Your task to perform on an android device: add a contact in the contacts app Image 0: 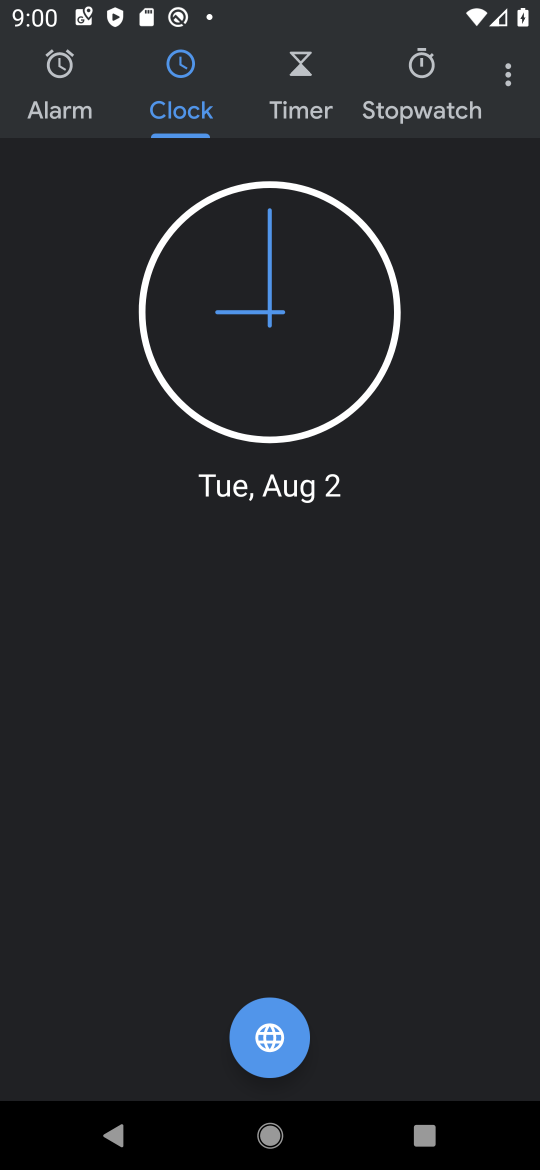
Step 0: press home button
Your task to perform on an android device: add a contact in the contacts app Image 1: 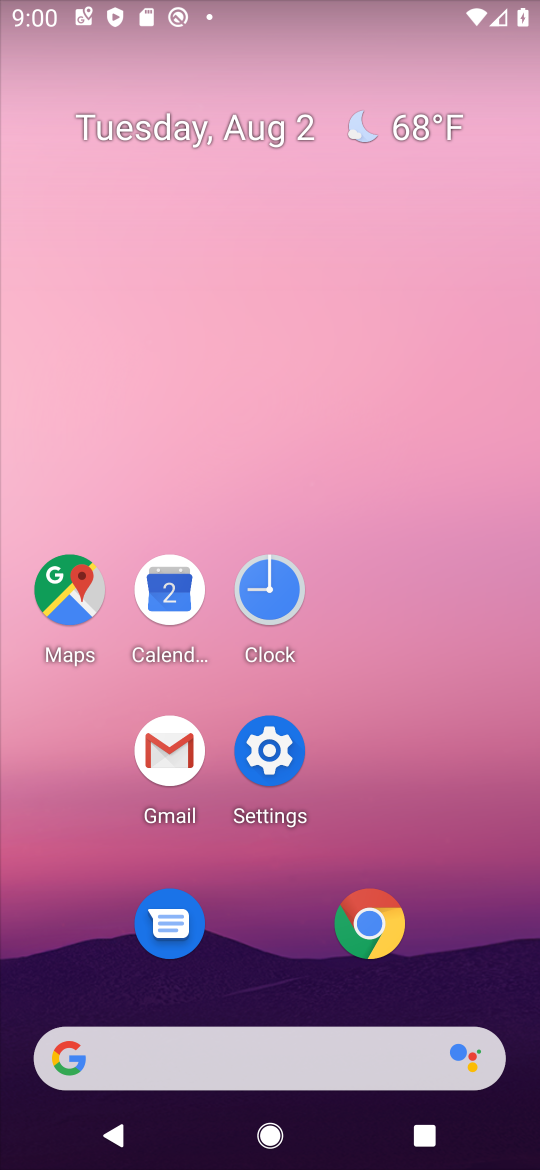
Step 1: drag from (518, 1112) to (531, 118)
Your task to perform on an android device: add a contact in the contacts app Image 2: 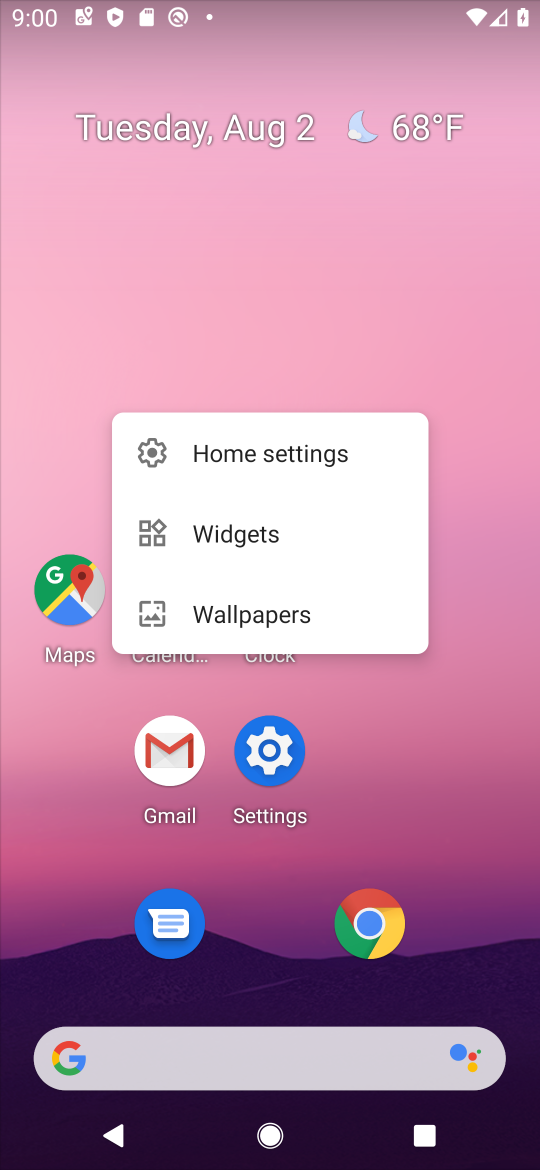
Step 2: drag from (520, 1097) to (504, 172)
Your task to perform on an android device: add a contact in the contacts app Image 3: 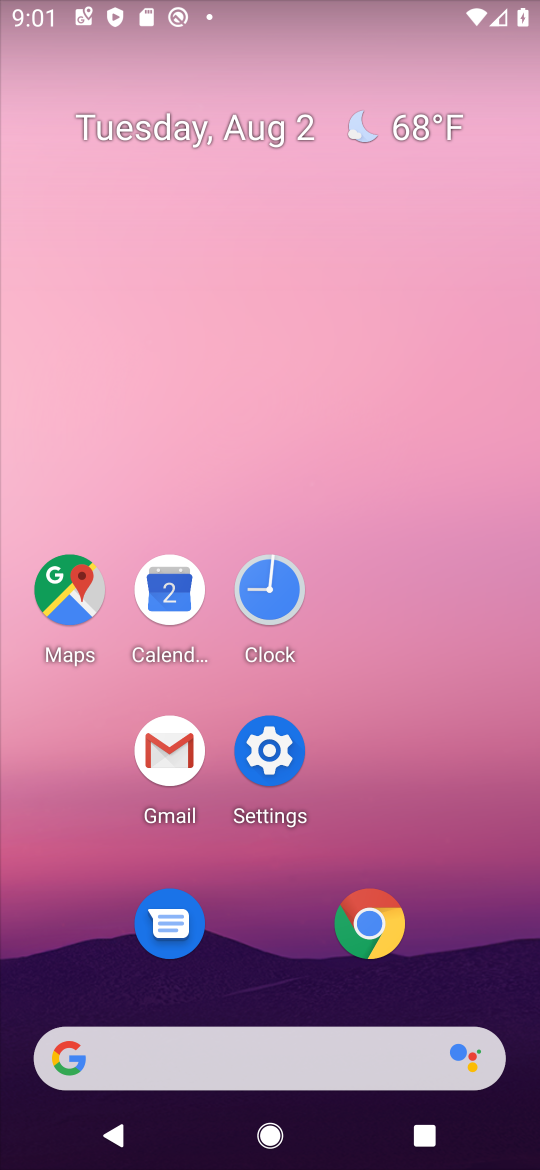
Step 3: drag from (512, 1063) to (359, 10)
Your task to perform on an android device: add a contact in the contacts app Image 4: 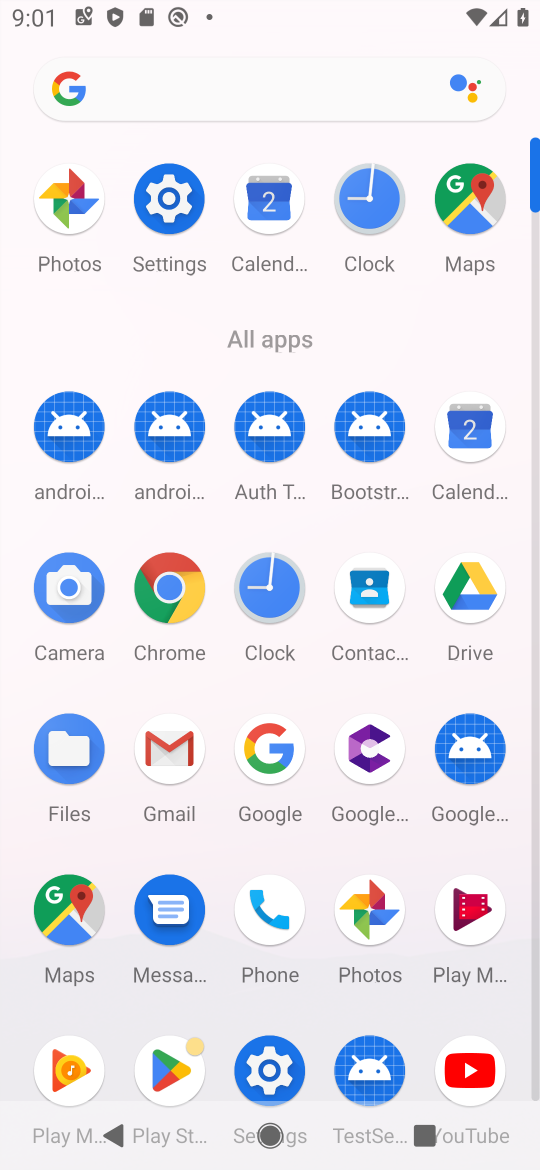
Step 4: click (355, 593)
Your task to perform on an android device: add a contact in the contacts app Image 5: 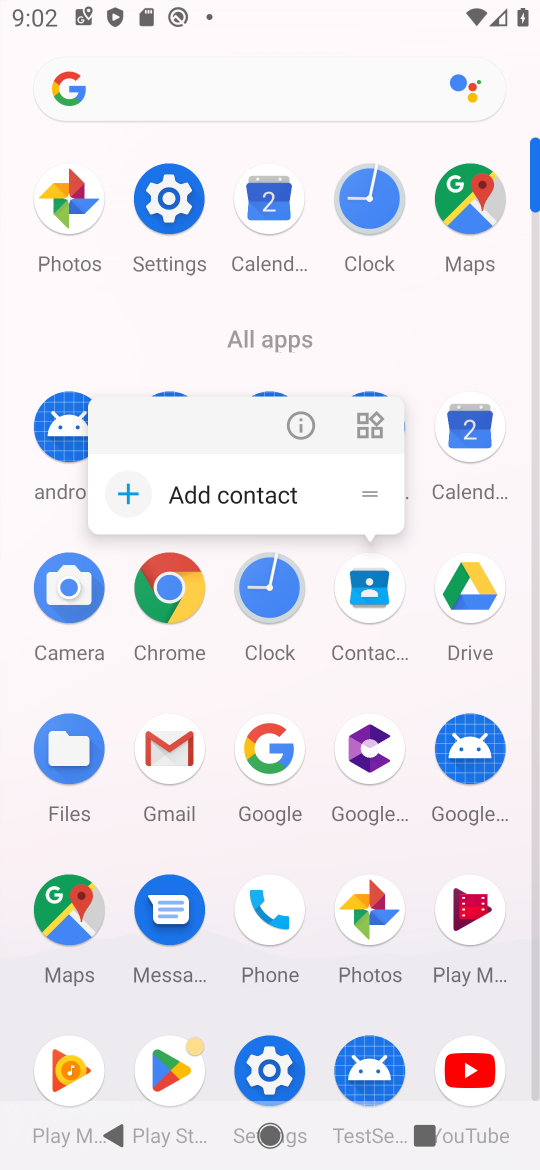
Step 5: click (376, 593)
Your task to perform on an android device: add a contact in the contacts app Image 6: 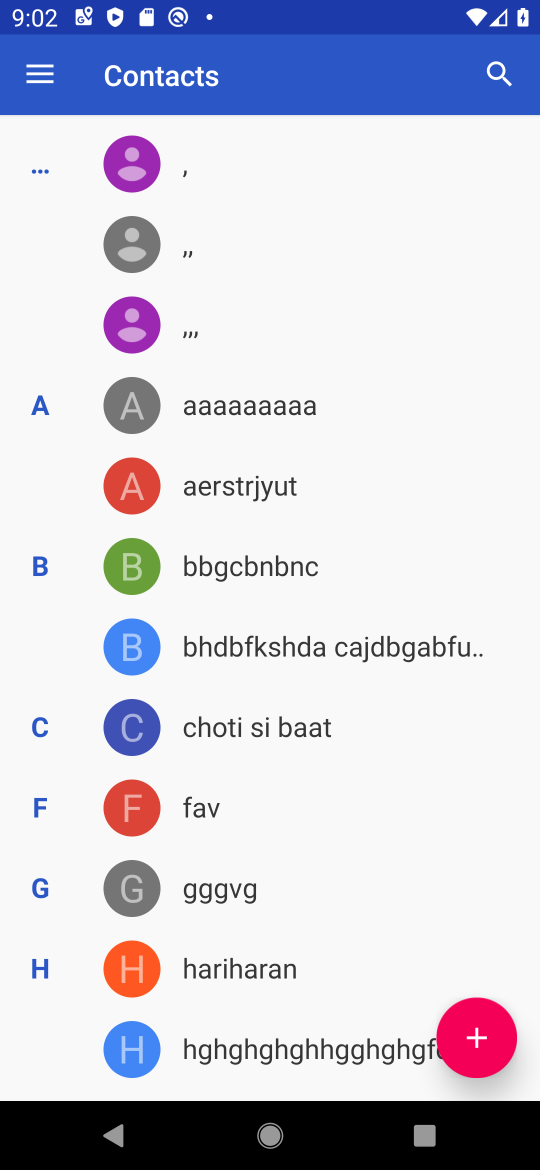
Step 6: click (461, 1031)
Your task to perform on an android device: add a contact in the contacts app Image 7: 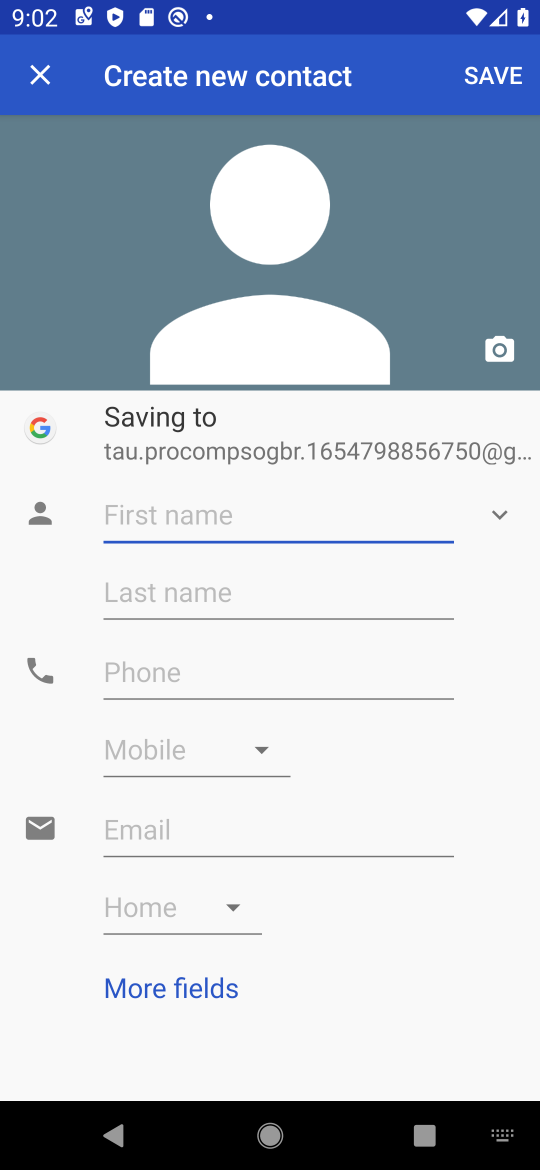
Step 7: type "rescghtr"
Your task to perform on an android device: add a contact in the contacts app Image 8: 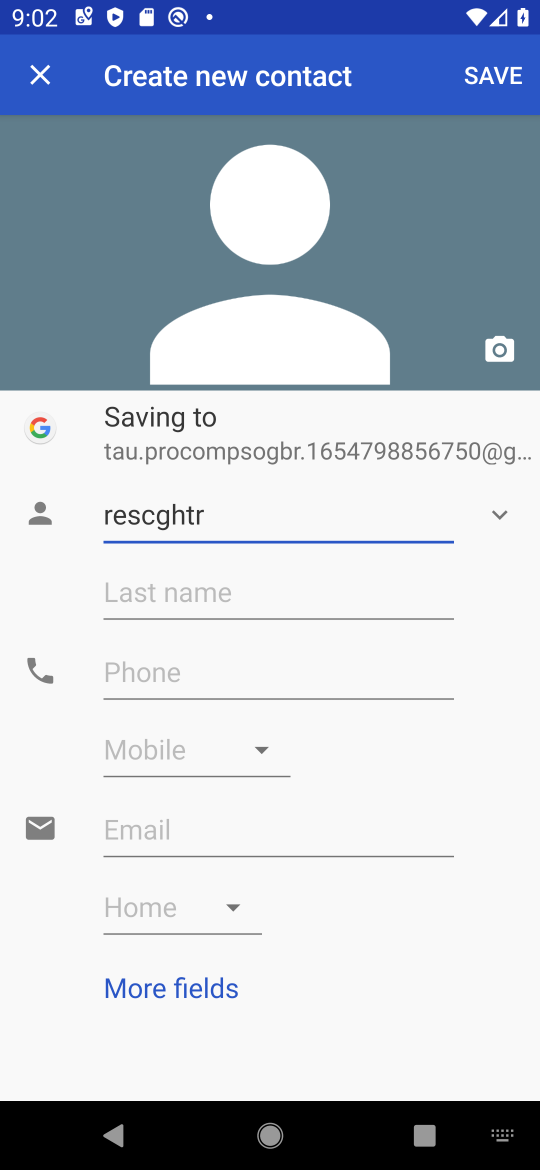
Step 8: click (220, 584)
Your task to perform on an android device: add a contact in the contacts app Image 9: 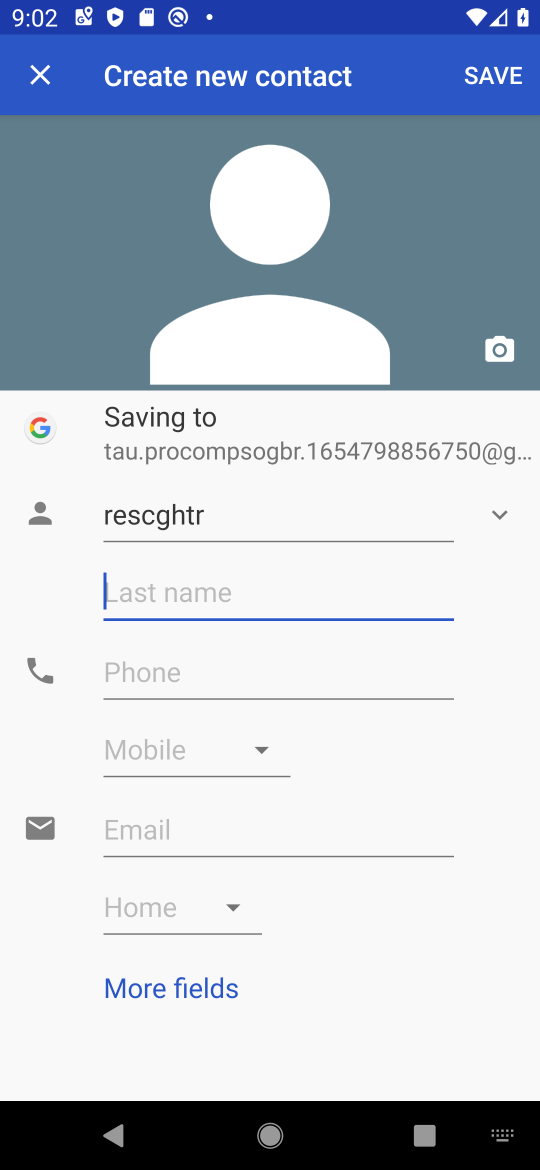
Step 9: type "yrexghgcdg"
Your task to perform on an android device: add a contact in the contacts app Image 10: 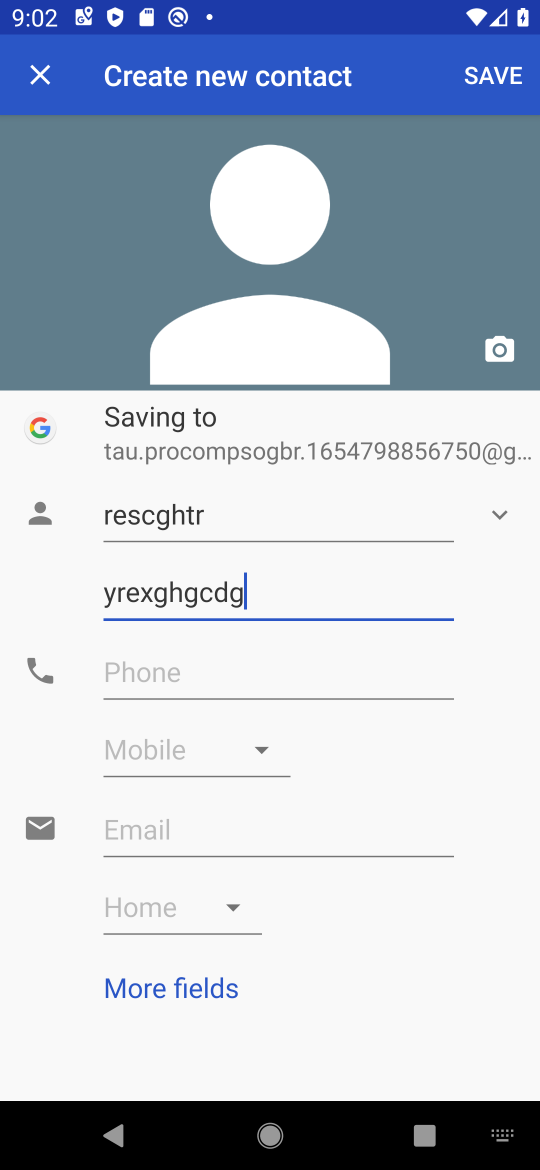
Step 10: click (163, 678)
Your task to perform on an android device: add a contact in the contacts app Image 11: 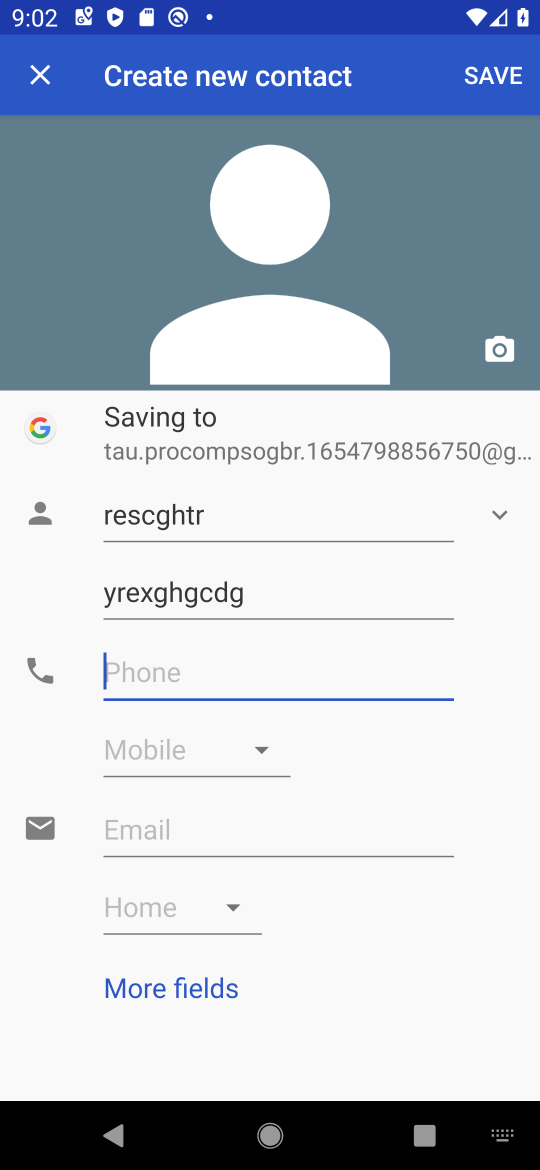
Step 11: type "56343524365332"
Your task to perform on an android device: add a contact in the contacts app Image 12: 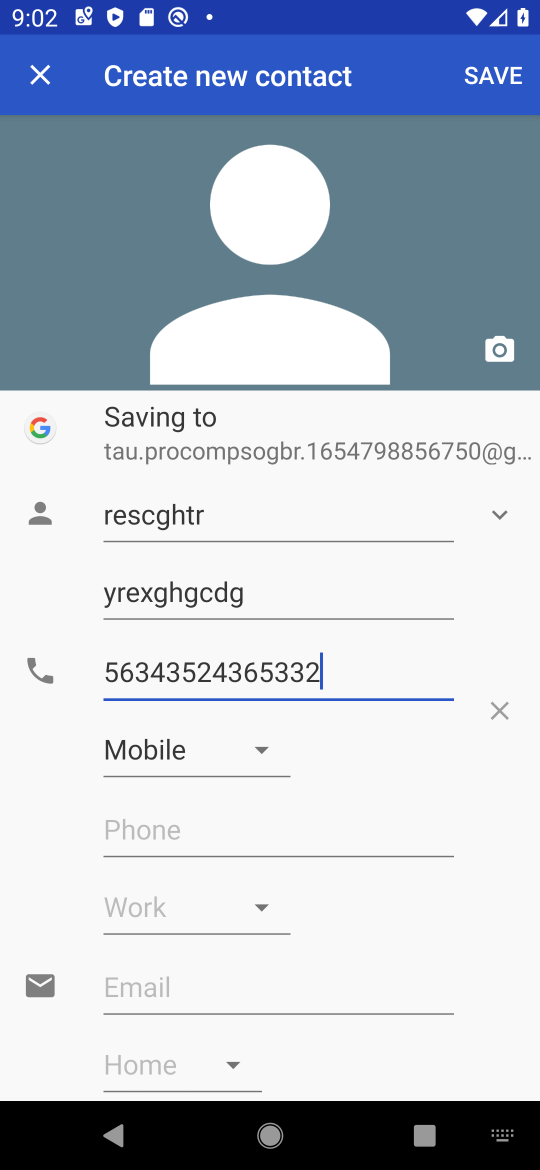
Step 12: click (468, 73)
Your task to perform on an android device: add a contact in the contacts app Image 13: 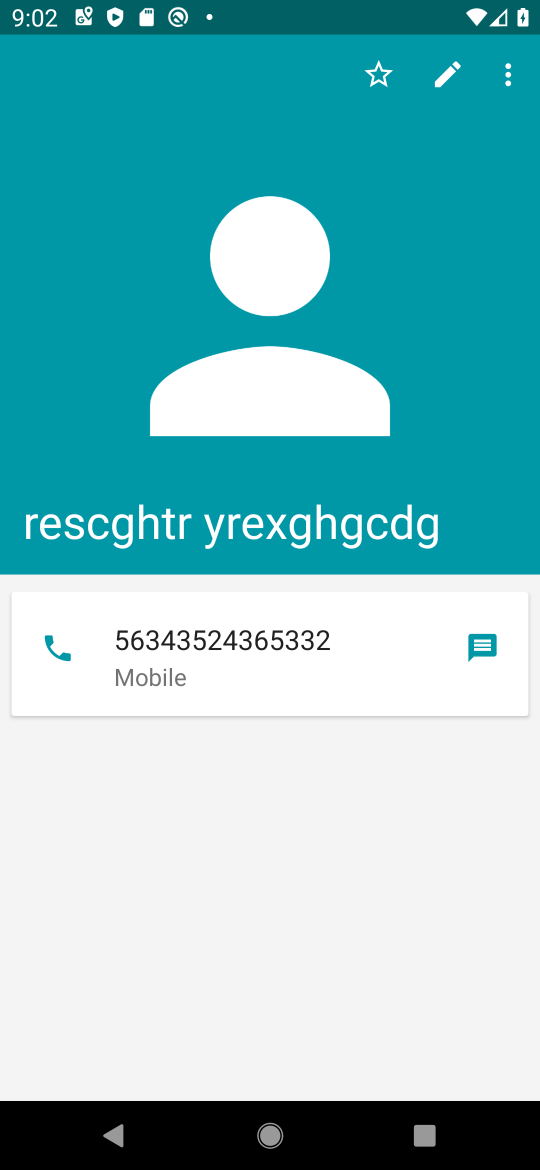
Step 13: task complete